Your task to perform on an android device: change timer sound Image 0: 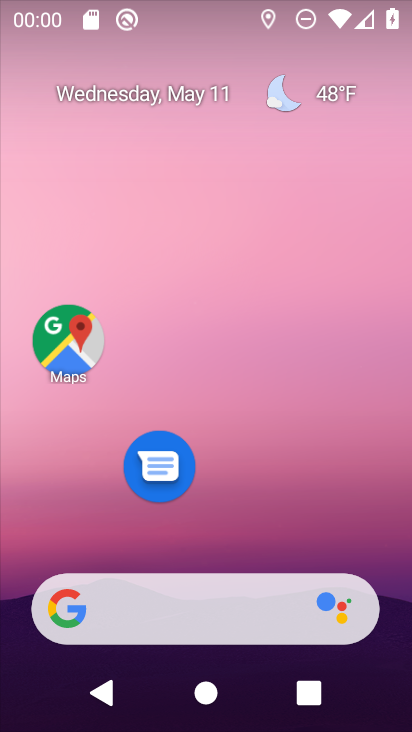
Step 0: drag from (272, 537) to (281, 9)
Your task to perform on an android device: change timer sound Image 1: 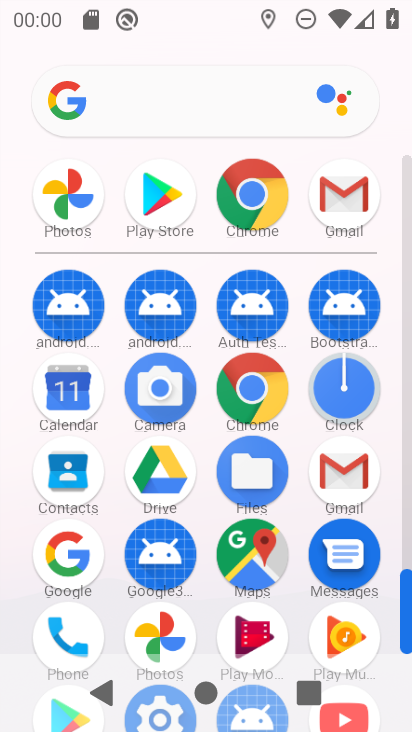
Step 1: click (338, 392)
Your task to perform on an android device: change timer sound Image 2: 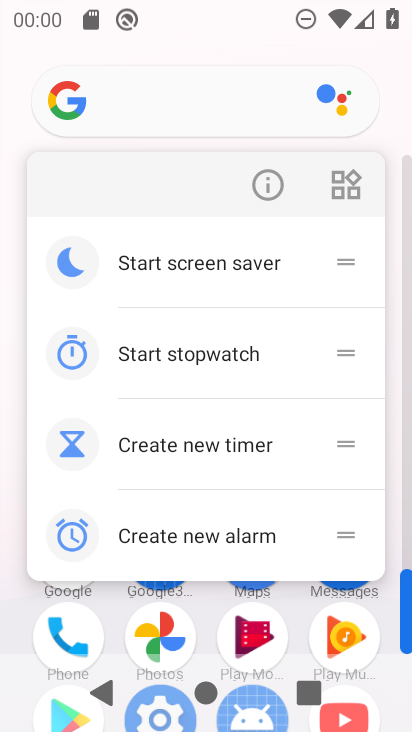
Step 2: click (390, 327)
Your task to perform on an android device: change timer sound Image 3: 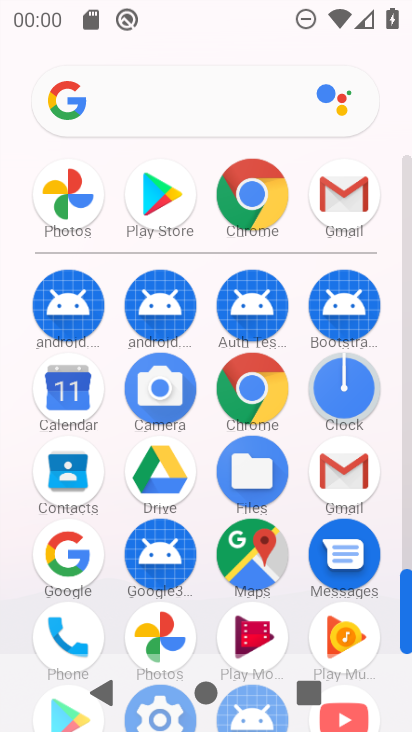
Step 3: click (336, 402)
Your task to perform on an android device: change timer sound Image 4: 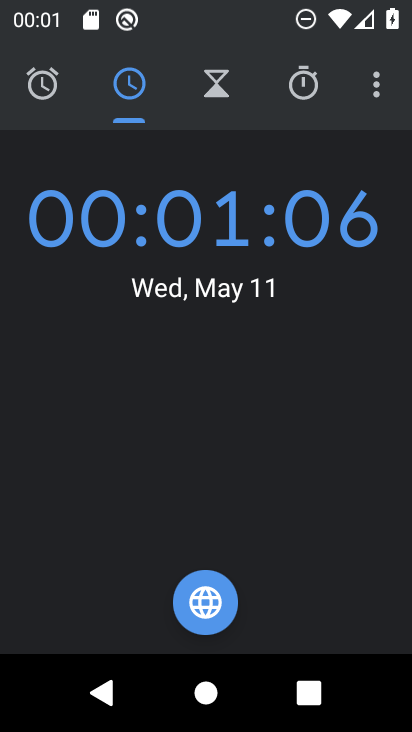
Step 4: click (369, 96)
Your task to perform on an android device: change timer sound Image 5: 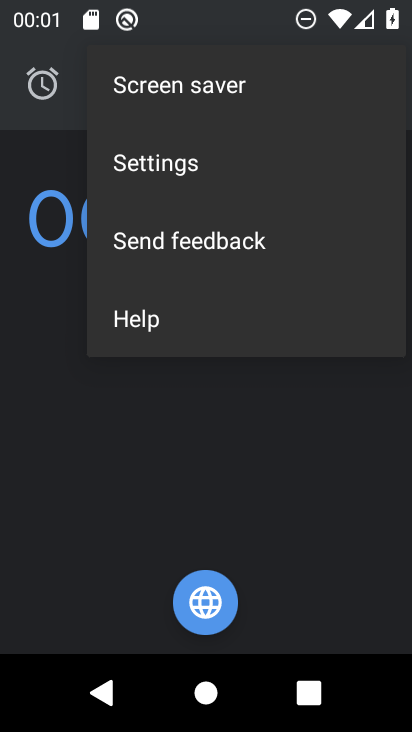
Step 5: click (310, 156)
Your task to perform on an android device: change timer sound Image 6: 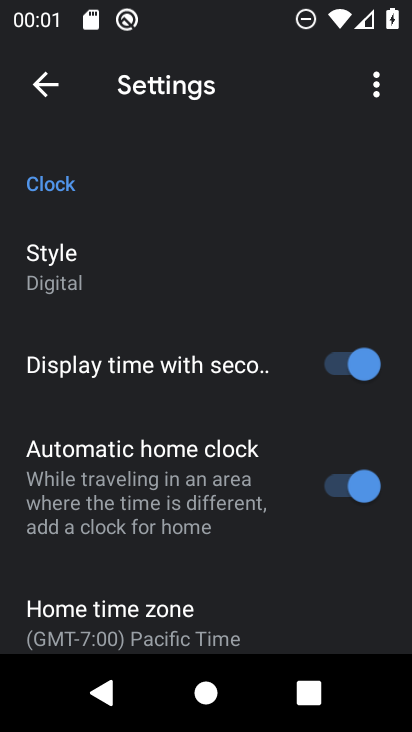
Step 6: drag from (176, 563) to (191, 295)
Your task to perform on an android device: change timer sound Image 7: 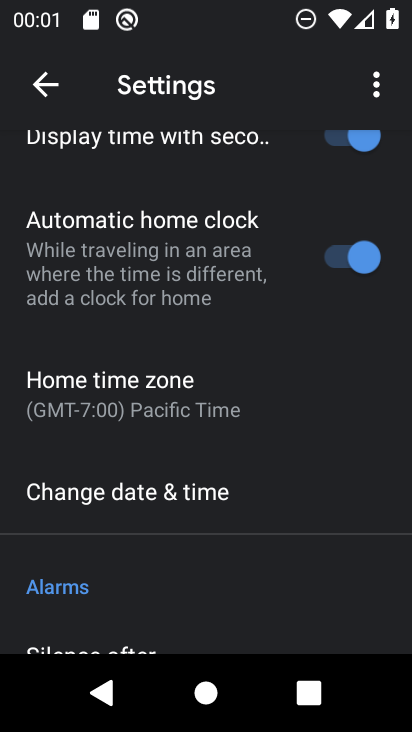
Step 7: drag from (221, 532) to (214, 126)
Your task to perform on an android device: change timer sound Image 8: 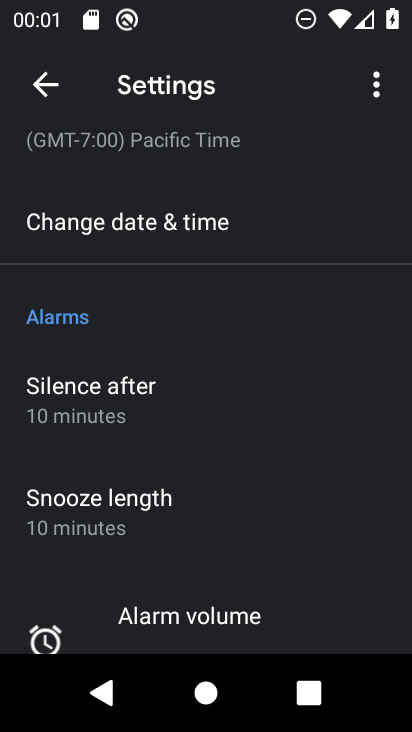
Step 8: drag from (176, 494) to (183, 252)
Your task to perform on an android device: change timer sound Image 9: 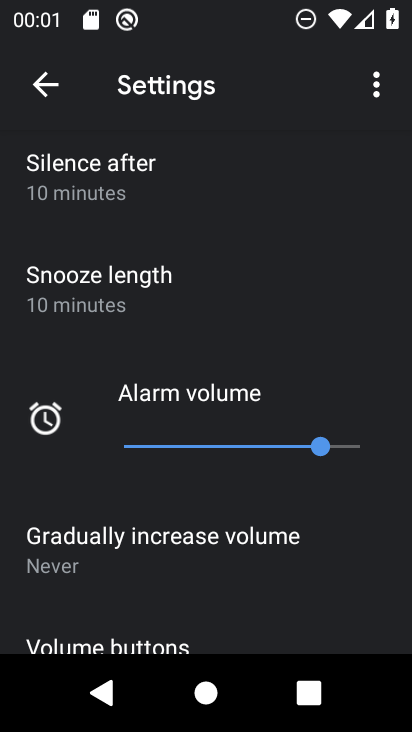
Step 9: drag from (196, 476) to (198, 200)
Your task to perform on an android device: change timer sound Image 10: 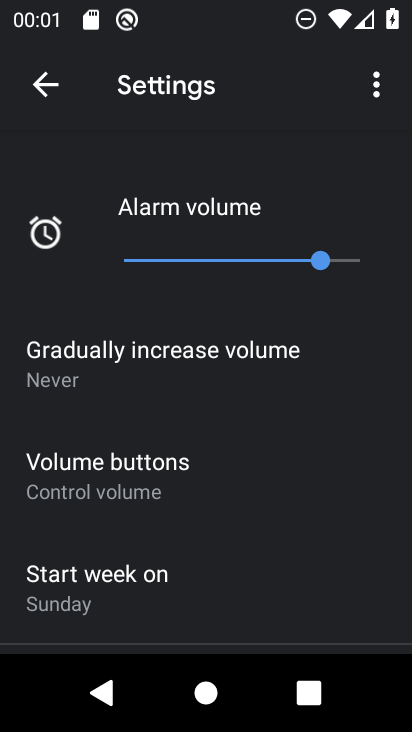
Step 10: drag from (135, 591) to (169, 295)
Your task to perform on an android device: change timer sound Image 11: 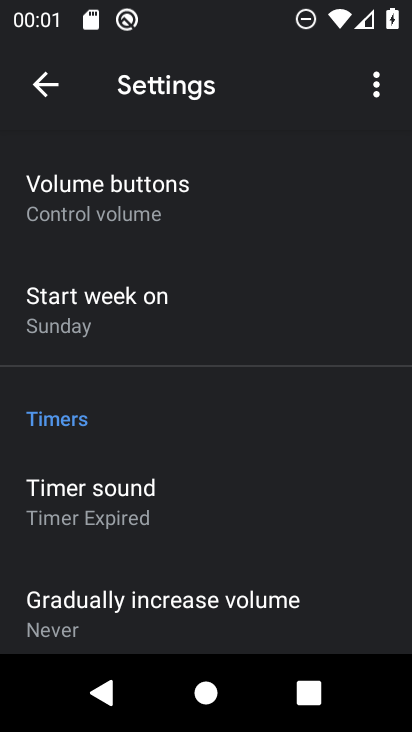
Step 11: click (151, 491)
Your task to perform on an android device: change timer sound Image 12: 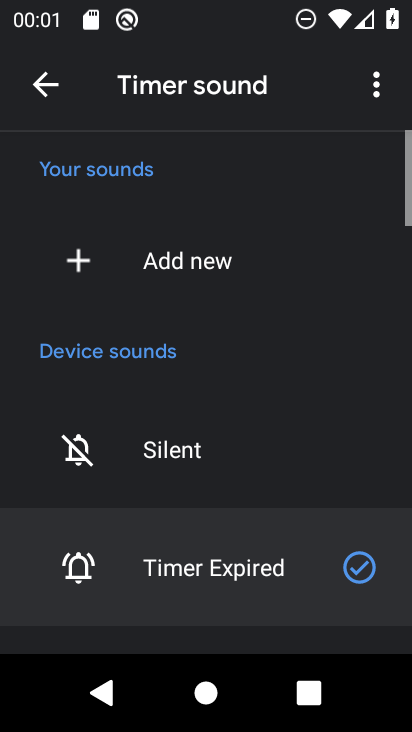
Step 12: drag from (181, 571) to (240, 266)
Your task to perform on an android device: change timer sound Image 13: 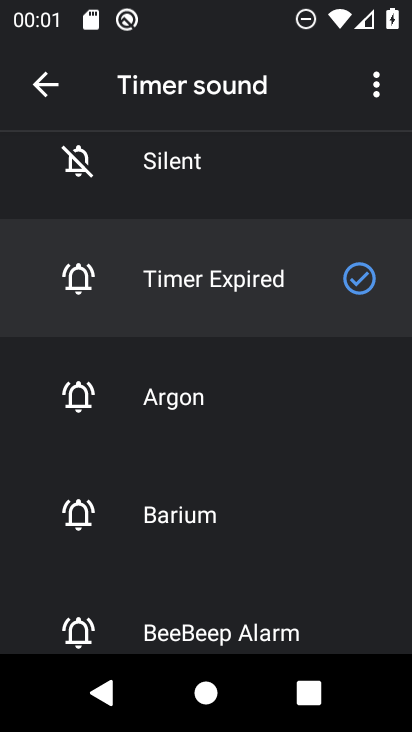
Step 13: click (183, 507)
Your task to perform on an android device: change timer sound Image 14: 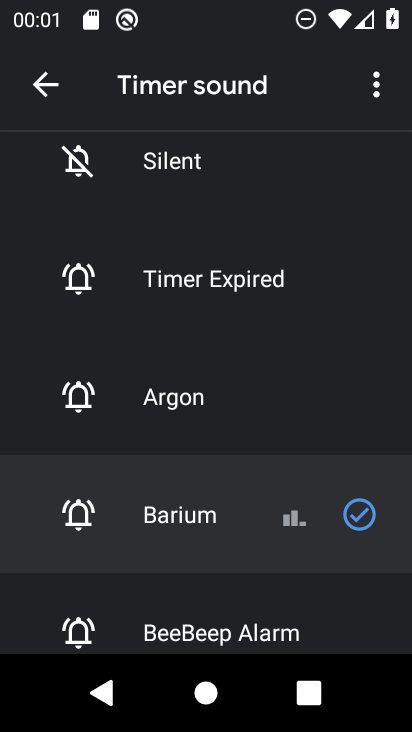
Step 14: task complete